Your task to perform on an android device: check google app version Image 0: 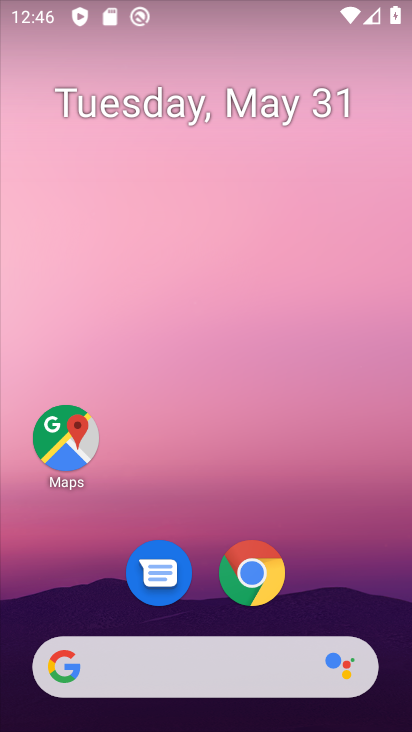
Step 0: drag from (344, 545) to (381, 137)
Your task to perform on an android device: check google app version Image 1: 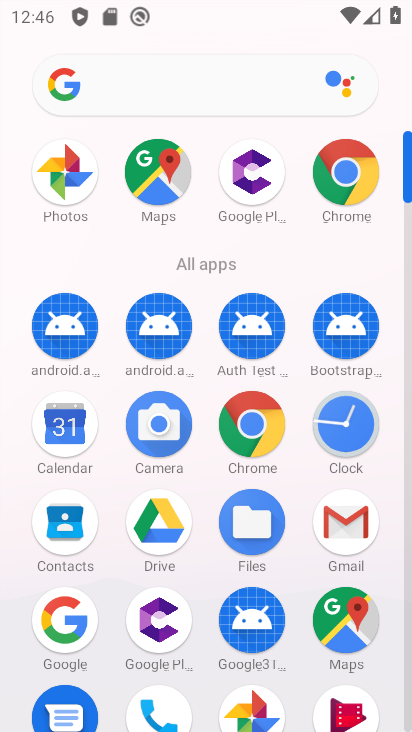
Step 1: click (73, 625)
Your task to perform on an android device: check google app version Image 2: 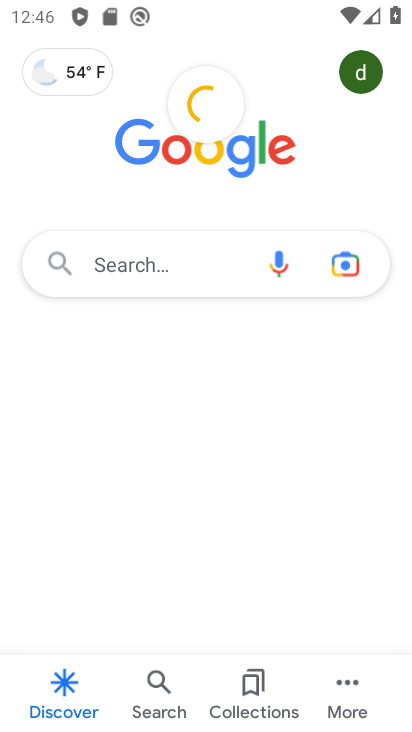
Step 2: click (347, 688)
Your task to perform on an android device: check google app version Image 3: 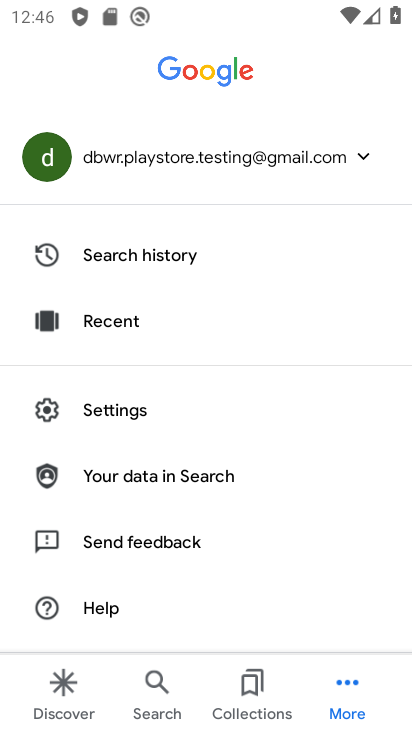
Step 3: drag from (294, 590) to (323, 426)
Your task to perform on an android device: check google app version Image 4: 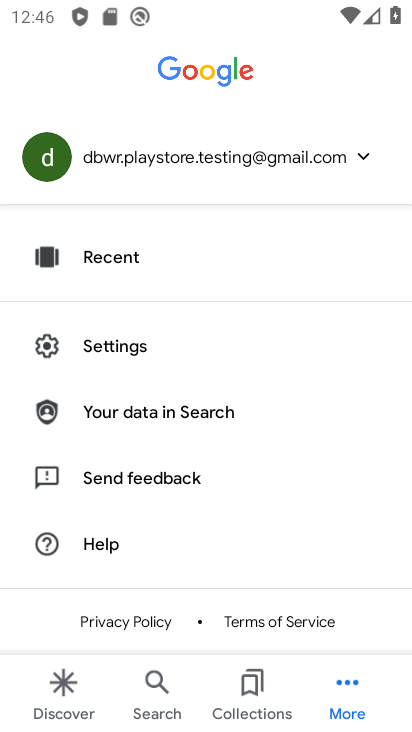
Step 4: drag from (286, 503) to (306, 339)
Your task to perform on an android device: check google app version Image 5: 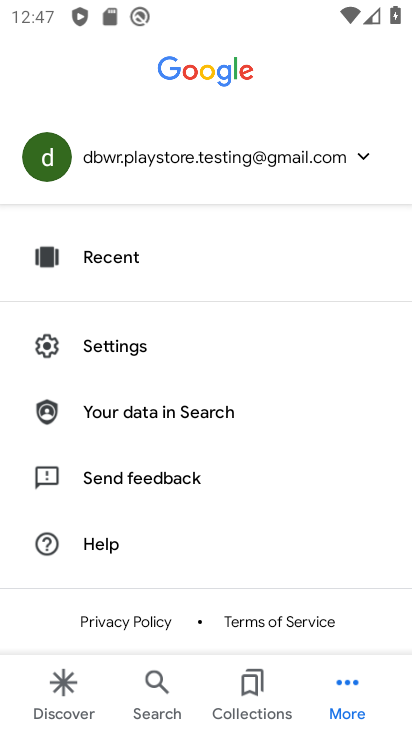
Step 5: click (135, 347)
Your task to perform on an android device: check google app version Image 6: 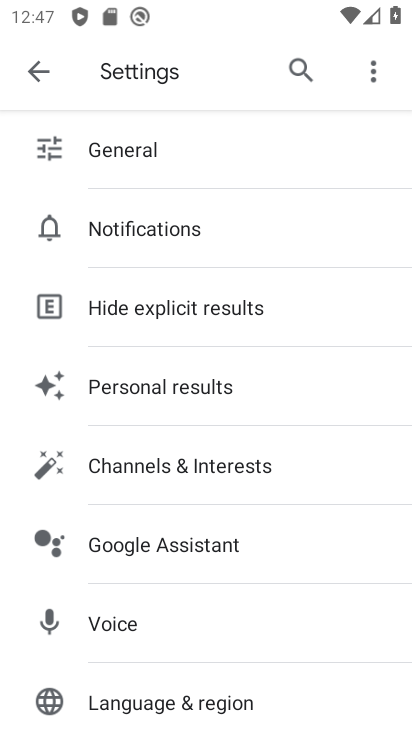
Step 6: drag from (284, 606) to (317, 431)
Your task to perform on an android device: check google app version Image 7: 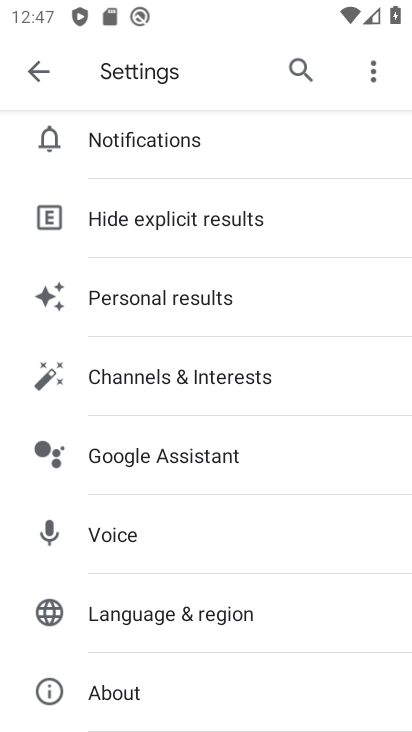
Step 7: click (107, 698)
Your task to perform on an android device: check google app version Image 8: 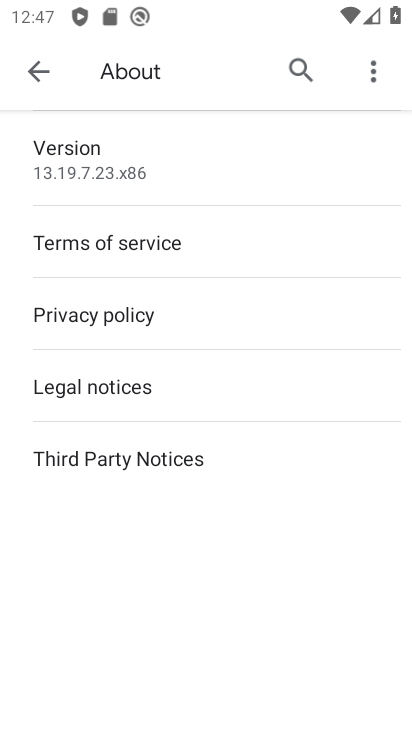
Step 8: task complete